Your task to perform on an android device: delete a single message in the gmail app Image 0: 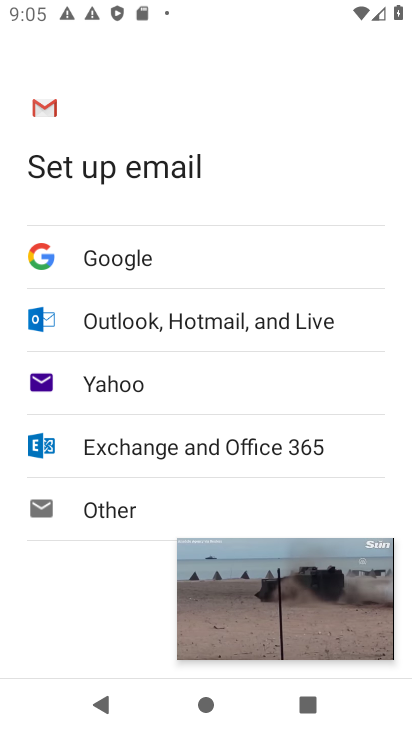
Step 0: press home button
Your task to perform on an android device: delete a single message in the gmail app Image 1: 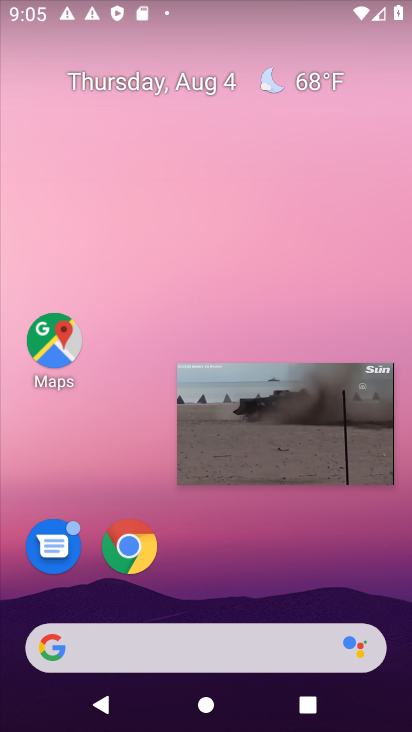
Step 1: click (360, 392)
Your task to perform on an android device: delete a single message in the gmail app Image 2: 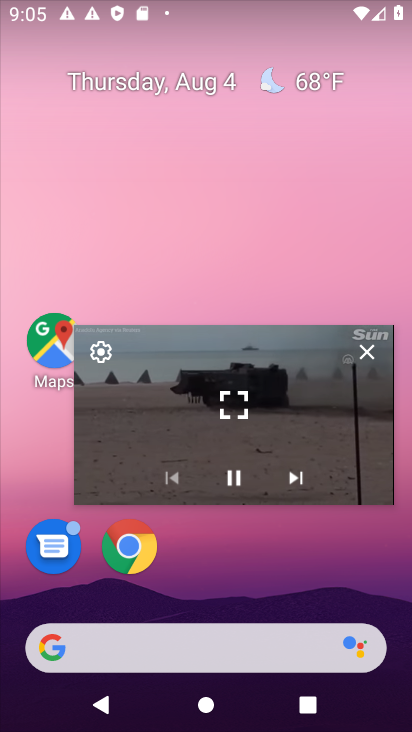
Step 2: click (367, 356)
Your task to perform on an android device: delete a single message in the gmail app Image 3: 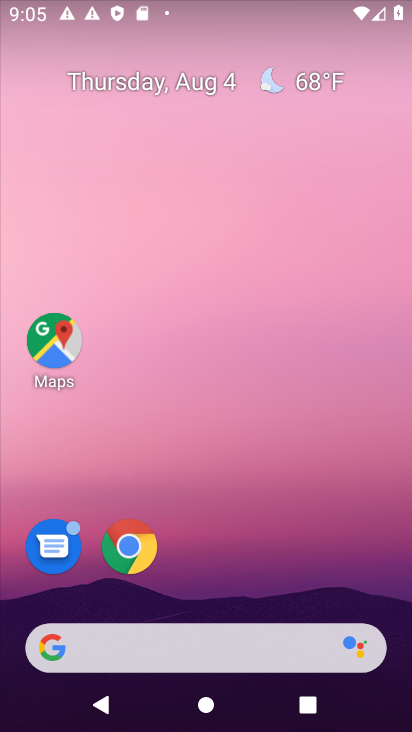
Step 3: drag from (234, 552) to (305, 69)
Your task to perform on an android device: delete a single message in the gmail app Image 4: 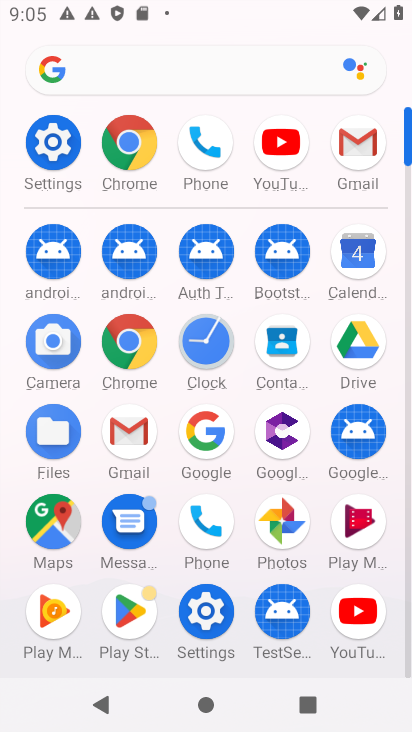
Step 4: click (142, 434)
Your task to perform on an android device: delete a single message in the gmail app Image 5: 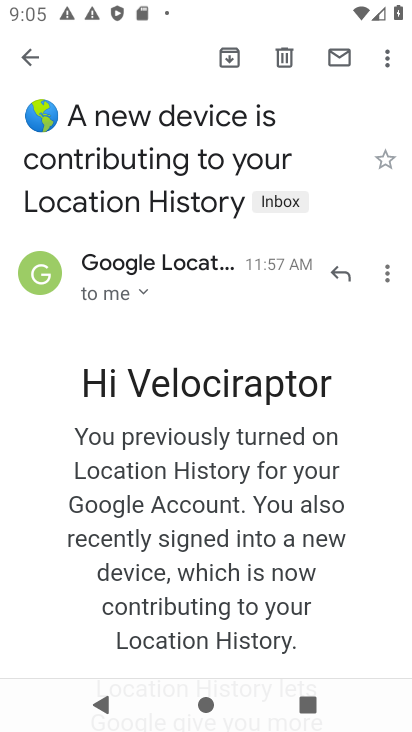
Step 5: click (288, 58)
Your task to perform on an android device: delete a single message in the gmail app Image 6: 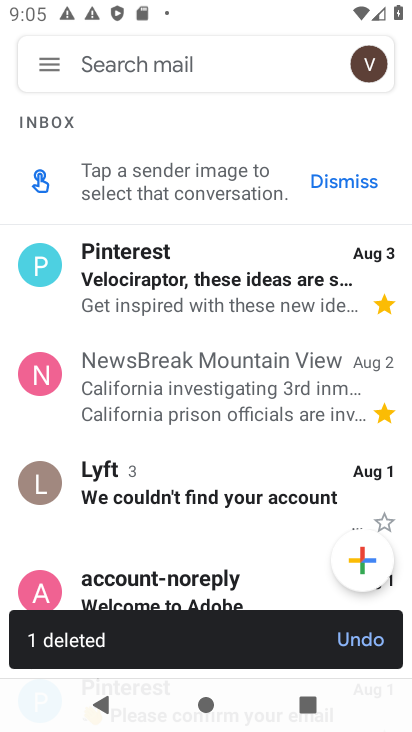
Step 6: task complete